Your task to perform on an android device: Is it going to rain this weekend? Image 0: 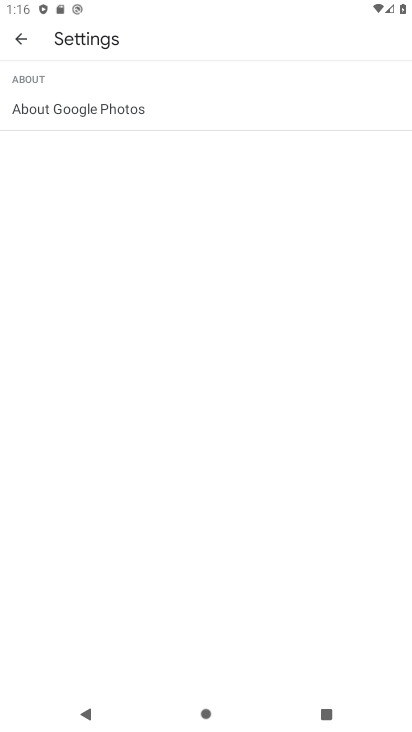
Step 0: press home button
Your task to perform on an android device: Is it going to rain this weekend? Image 1: 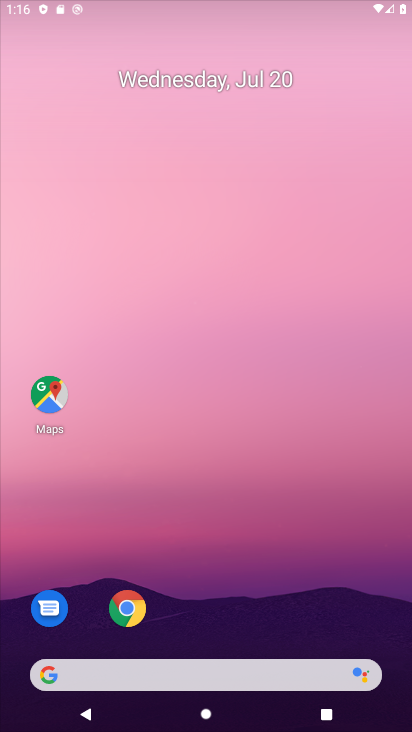
Step 1: drag from (256, 582) to (301, 110)
Your task to perform on an android device: Is it going to rain this weekend? Image 2: 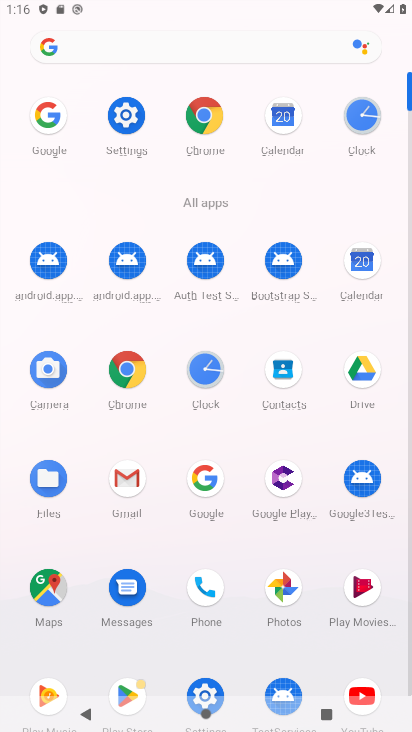
Step 2: click (208, 499)
Your task to perform on an android device: Is it going to rain this weekend? Image 3: 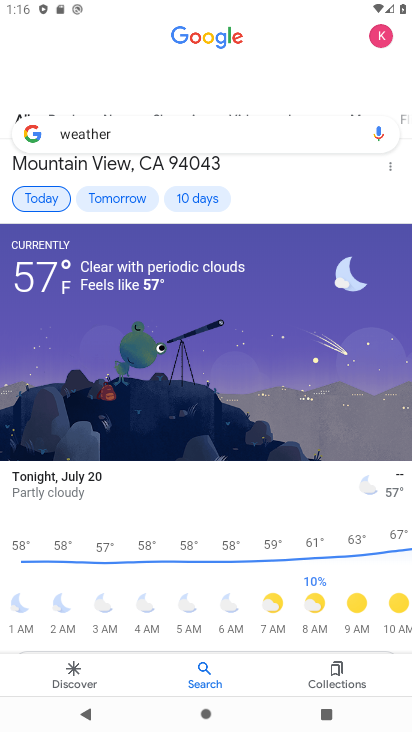
Step 3: task complete